Your task to perform on an android device: Open the calendar and show me this week's events? Image 0: 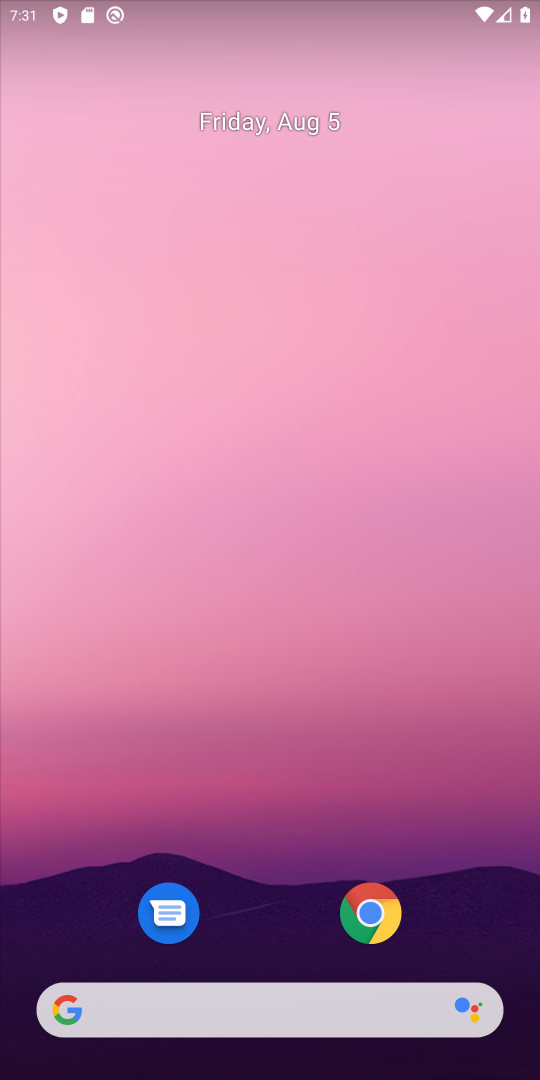
Step 0: press home button
Your task to perform on an android device: Open the calendar and show me this week's events? Image 1: 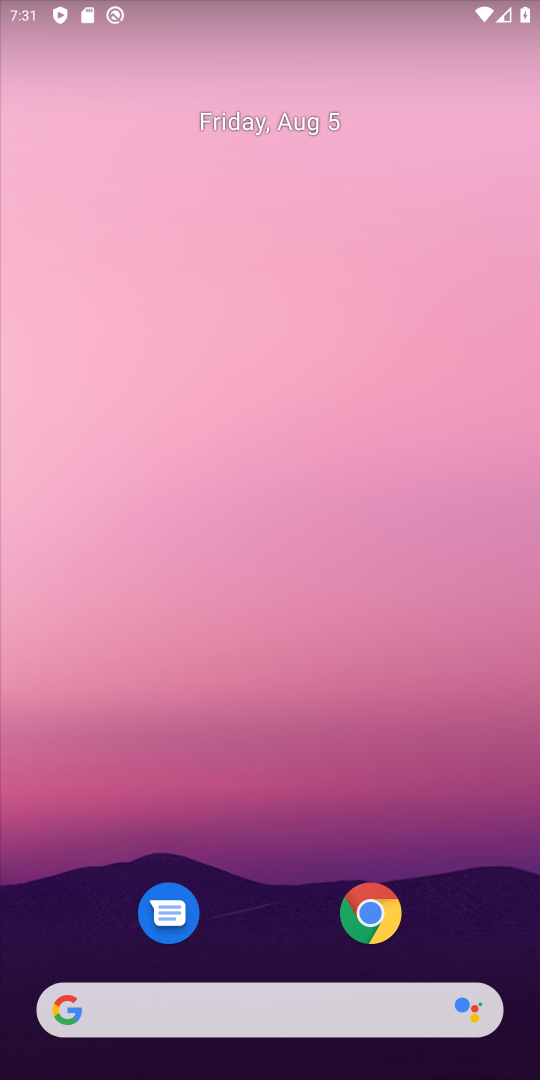
Step 1: drag from (258, 946) to (272, 341)
Your task to perform on an android device: Open the calendar and show me this week's events? Image 2: 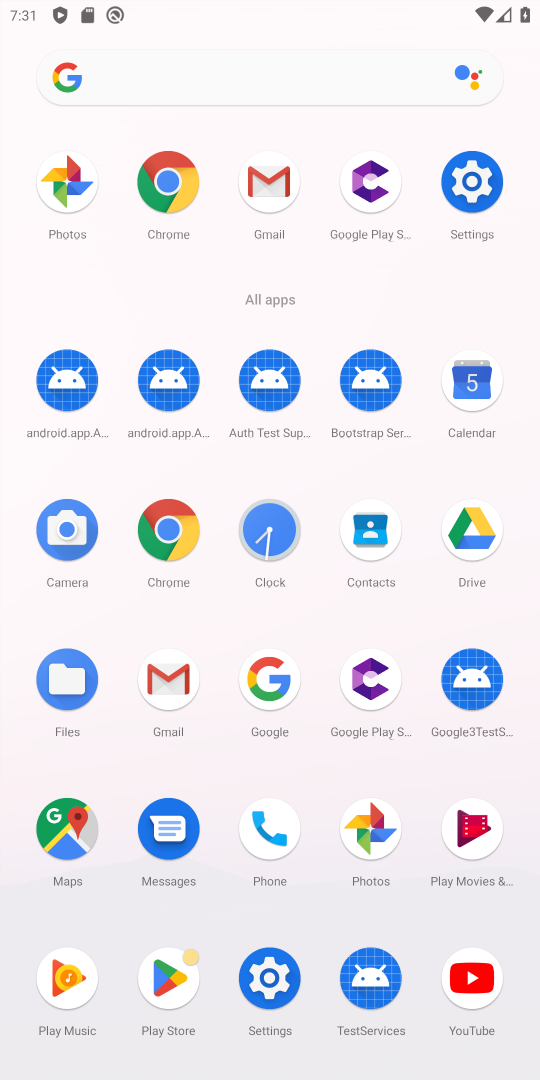
Step 2: click (459, 382)
Your task to perform on an android device: Open the calendar and show me this week's events? Image 3: 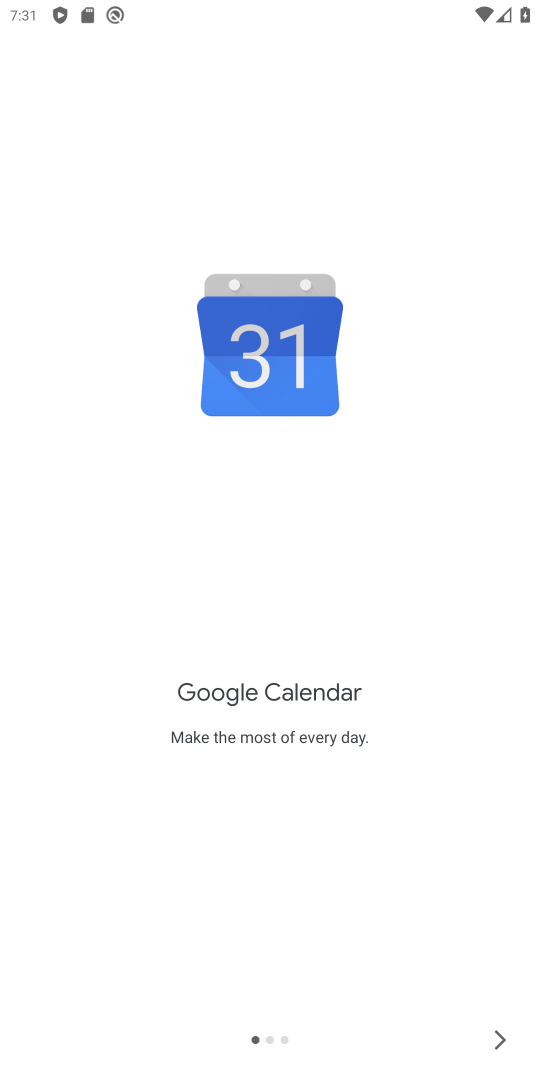
Step 3: click (492, 1042)
Your task to perform on an android device: Open the calendar and show me this week's events? Image 4: 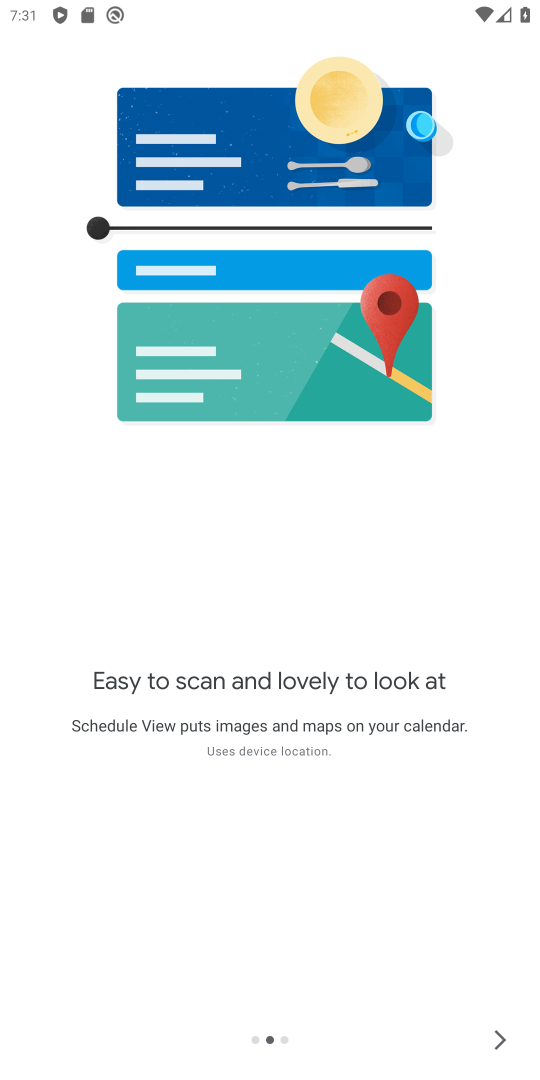
Step 4: click (492, 1042)
Your task to perform on an android device: Open the calendar and show me this week's events? Image 5: 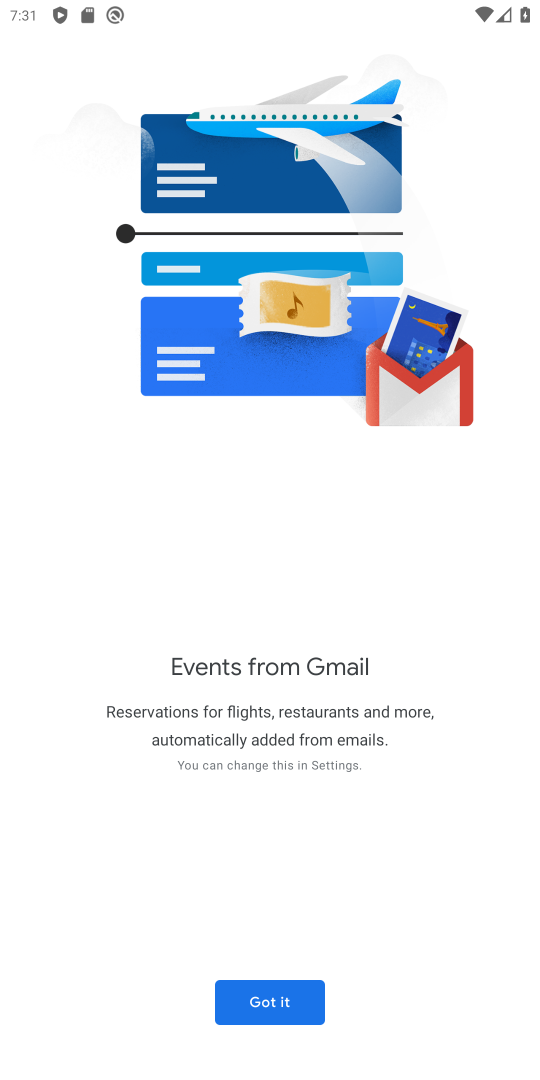
Step 5: click (276, 1004)
Your task to perform on an android device: Open the calendar and show me this week's events? Image 6: 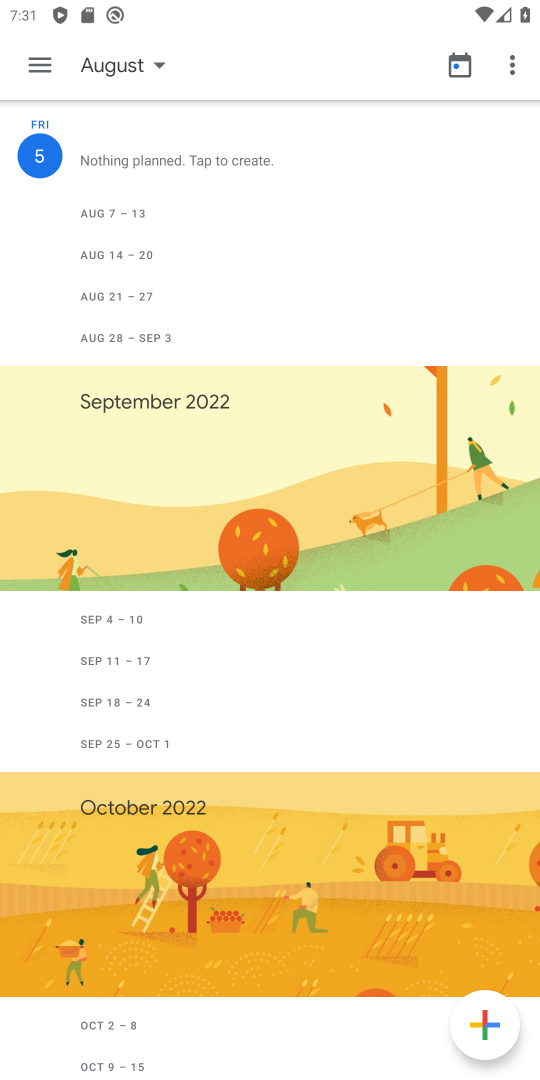
Step 6: task complete